Your task to perform on an android device: Go to eBay Image 0: 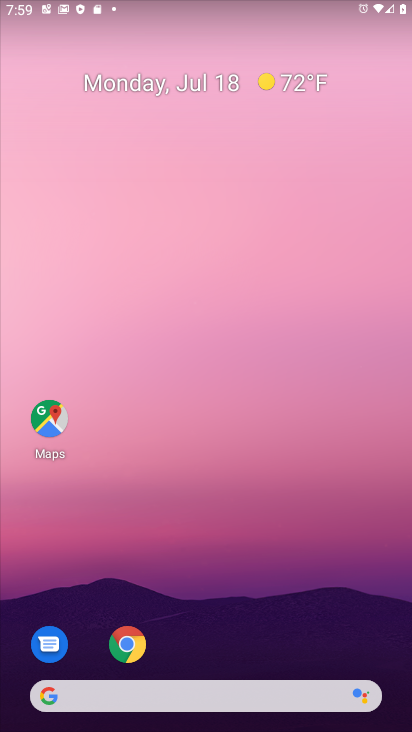
Step 0: drag from (264, 97) to (227, 2)
Your task to perform on an android device: Go to eBay Image 1: 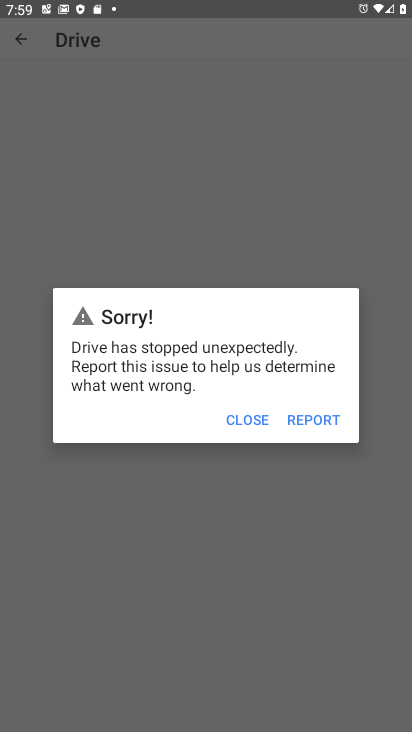
Step 1: press home button
Your task to perform on an android device: Go to eBay Image 2: 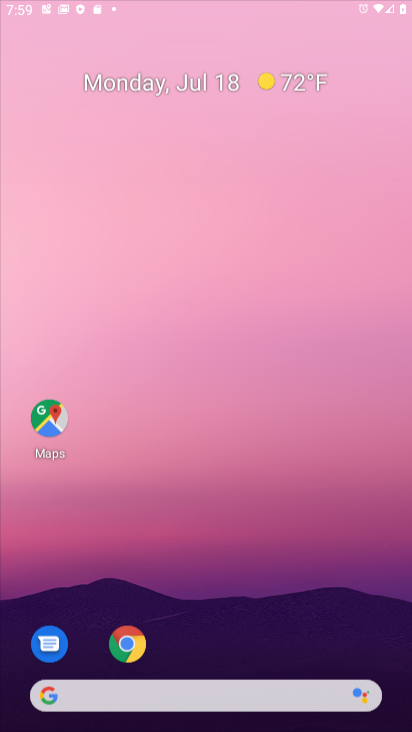
Step 2: drag from (399, 693) to (244, 96)
Your task to perform on an android device: Go to eBay Image 3: 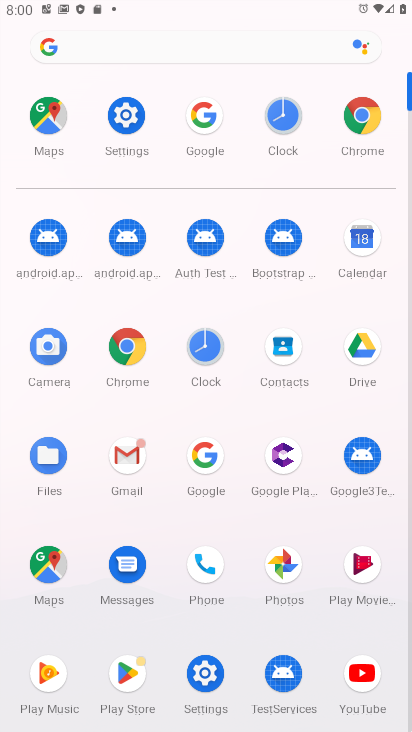
Step 3: click (204, 475)
Your task to perform on an android device: Go to eBay Image 4: 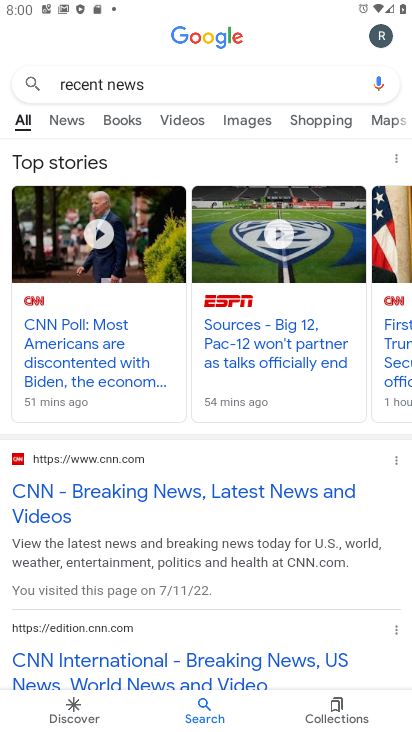
Step 4: press back button
Your task to perform on an android device: Go to eBay Image 5: 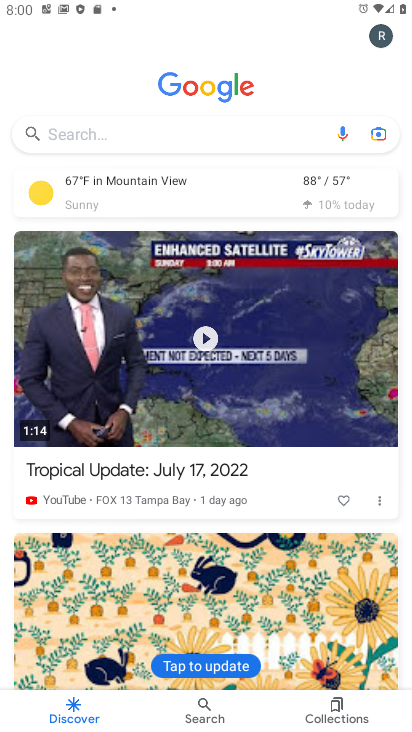
Step 5: click (103, 121)
Your task to perform on an android device: Go to eBay Image 6: 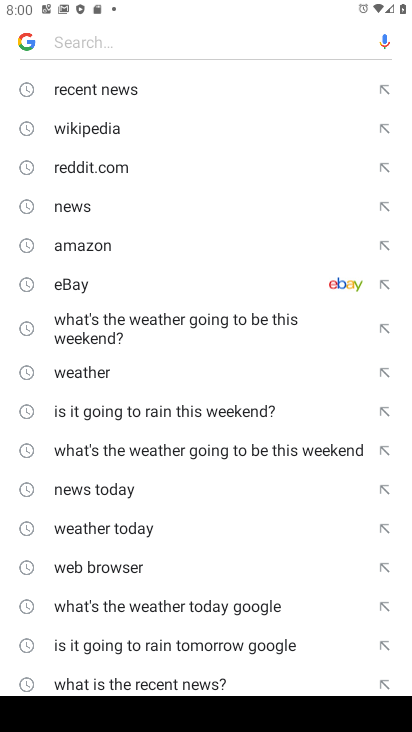
Step 6: click (62, 285)
Your task to perform on an android device: Go to eBay Image 7: 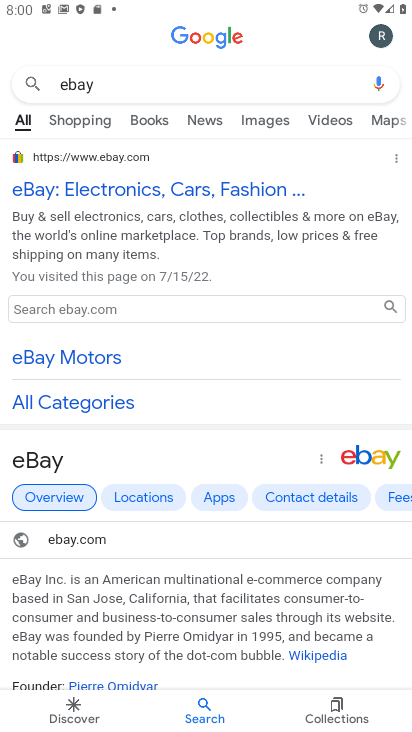
Step 7: task complete